Your task to perform on an android device: turn off translation in the chrome app Image 0: 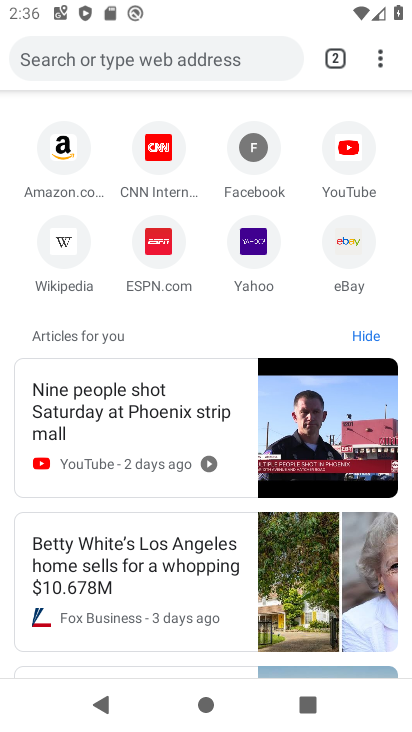
Step 0: click (383, 57)
Your task to perform on an android device: turn off translation in the chrome app Image 1: 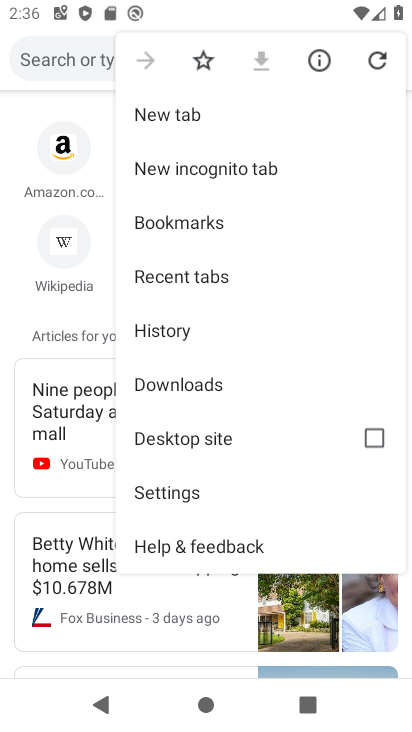
Step 1: click (180, 501)
Your task to perform on an android device: turn off translation in the chrome app Image 2: 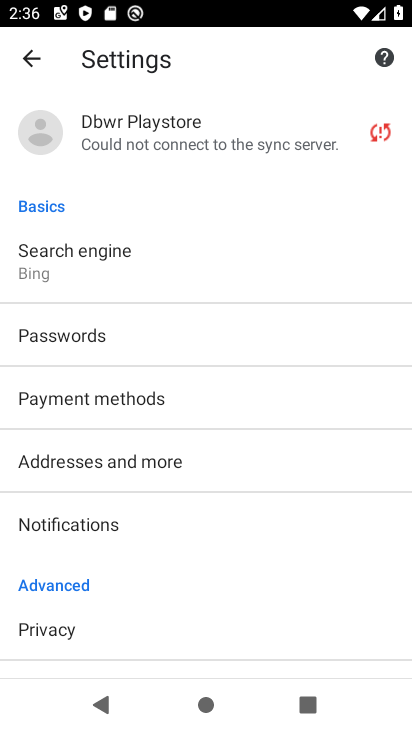
Step 2: drag from (152, 610) to (148, 405)
Your task to perform on an android device: turn off translation in the chrome app Image 3: 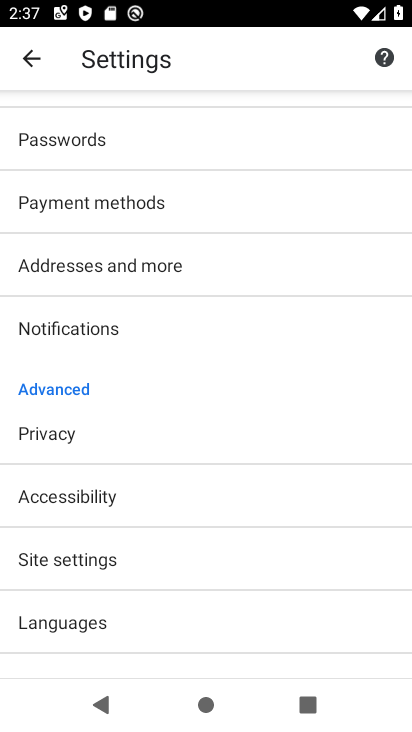
Step 3: click (131, 556)
Your task to perform on an android device: turn off translation in the chrome app Image 4: 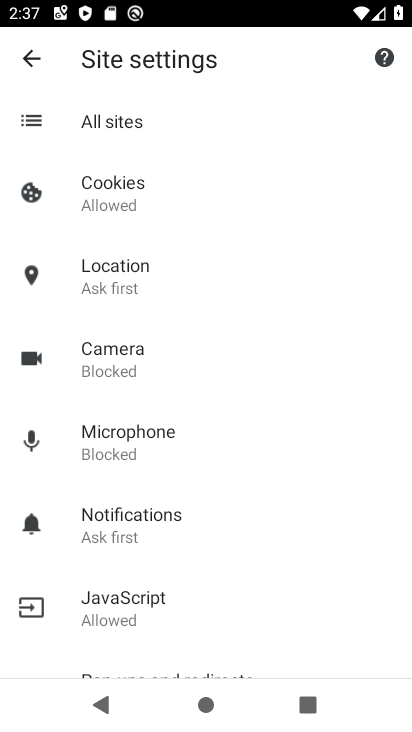
Step 4: task complete